Your task to perform on an android device: Open the map Image 0: 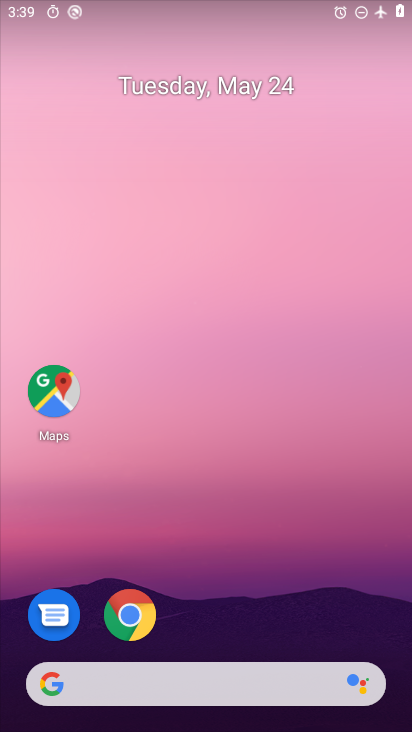
Step 0: click (55, 400)
Your task to perform on an android device: Open the map Image 1: 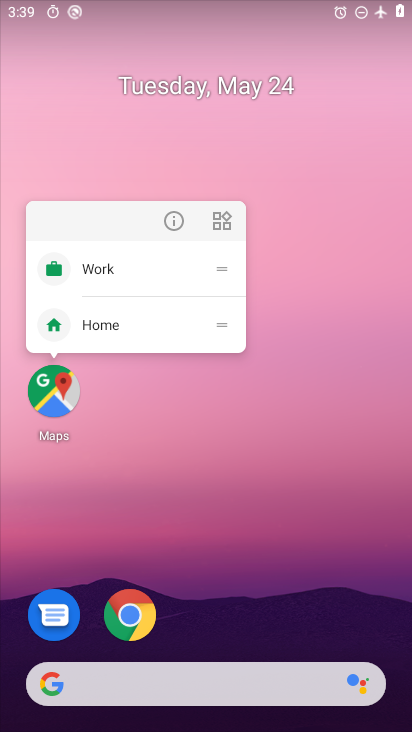
Step 1: click (62, 397)
Your task to perform on an android device: Open the map Image 2: 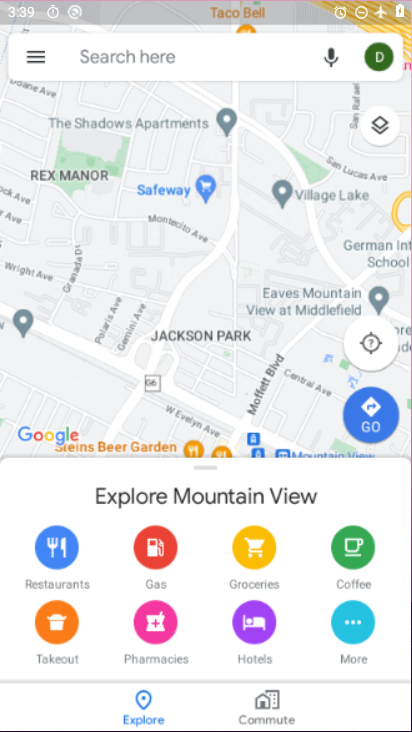
Step 2: click (45, 407)
Your task to perform on an android device: Open the map Image 3: 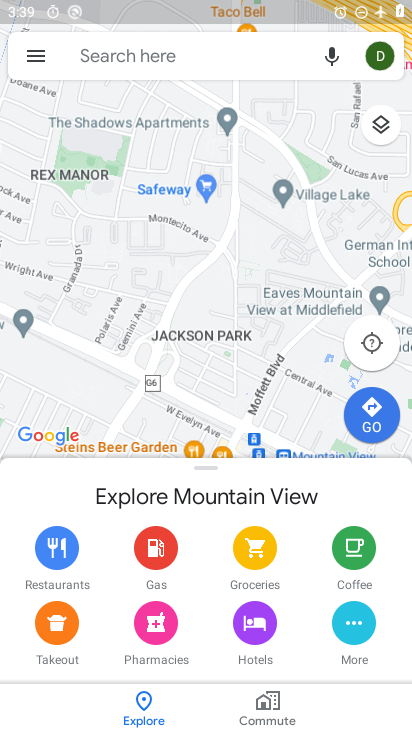
Step 3: task complete